Your task to perform on an android device: Open Chrome and go to settings Image 0: 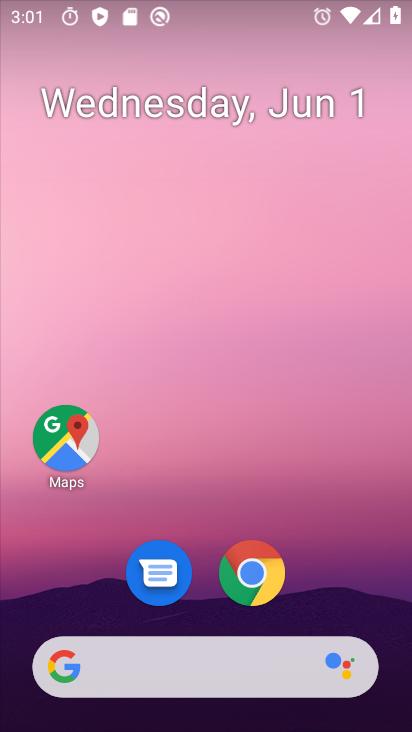
Step 0: click (234, 584)
Your task to perform on an android device: Open Chrome and go to settings Image 1: 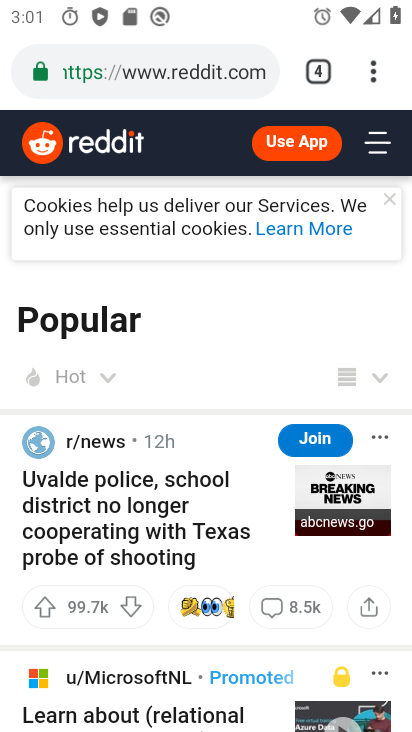
Step 1: task complete